Your task to perform on an android device: Go to eBay Image 0: 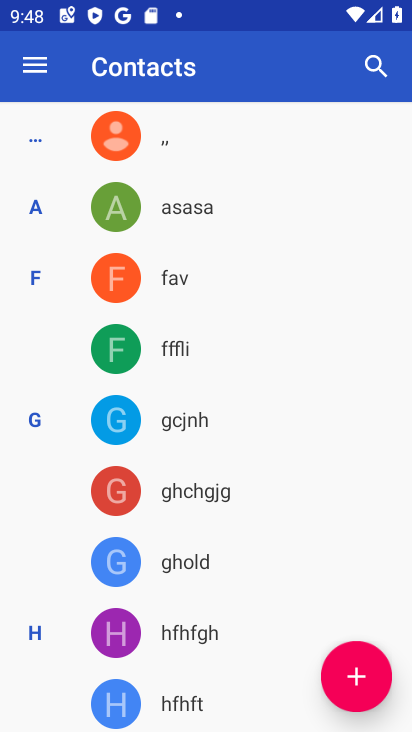
Step 0: press home button
Your task to perform on an android device: Go to eBay Image 1: 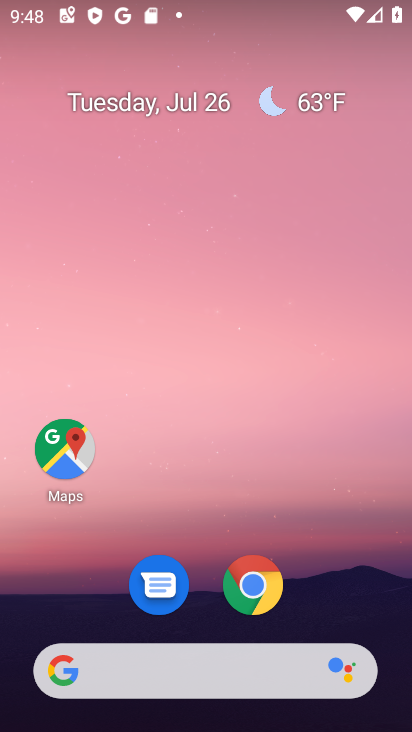
Step 1: click (228, 680)
Your task to perform on an android device: Go to eBay Image 2: 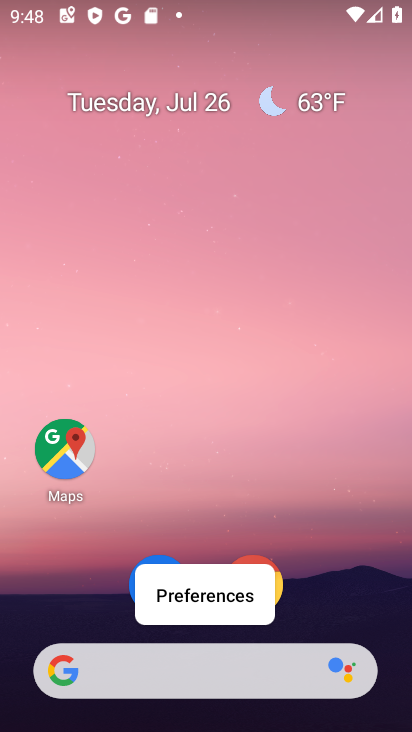
Step 2: click (228, 680)
Your task to perform on an android device: Go to eBay Image 3: 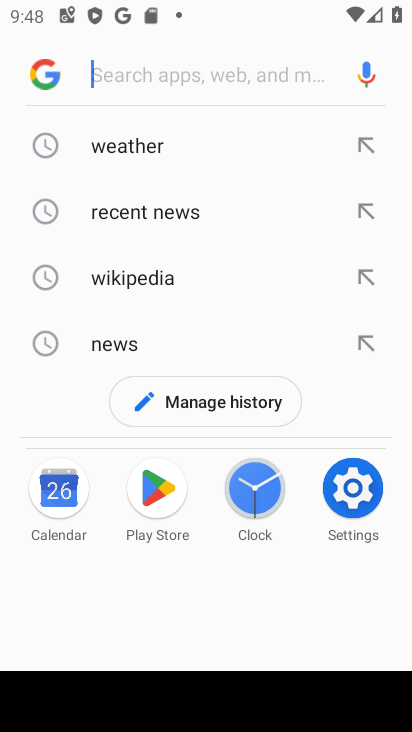
Step 3: type "ebay"
Your task to perform on an android device: Go to eBay Image 4: 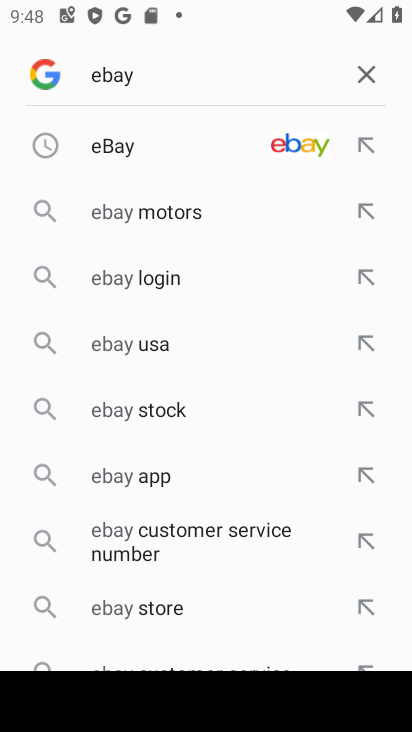
Step 4: click (296, 142)
Your task to perform on an android device: Go to eBay Image 5: 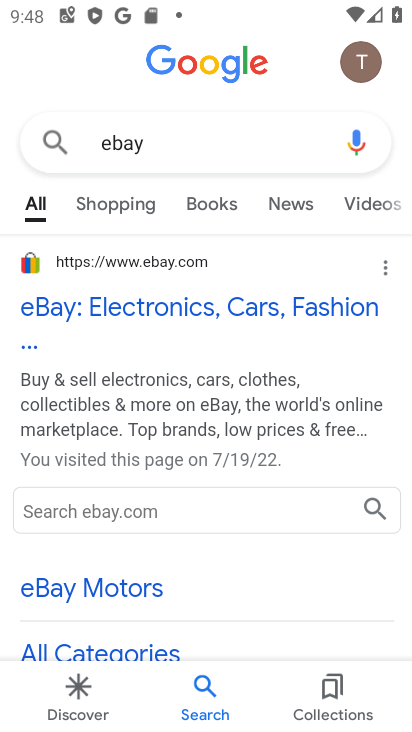
Step 5: click (55, 312)
Your task to perform on an android device: Go to eBay Image 6: 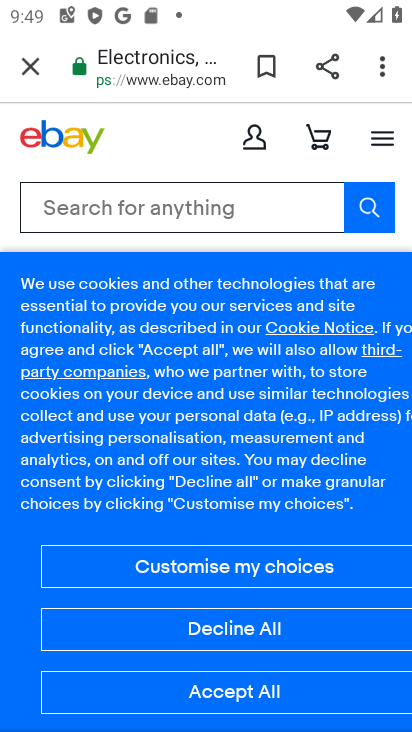
Step 6: click (378, 627)
Your task to perform on an android device: Go to eBay Image 7: 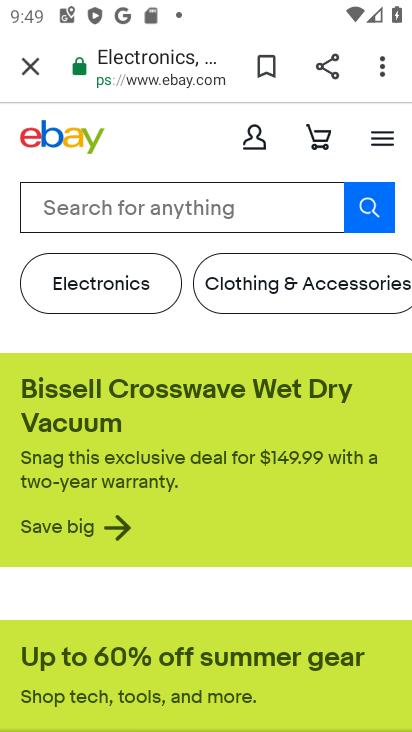
Step 7: task complete